Your task to perform on an android device: Is it going to rain this weekend? Image 0: 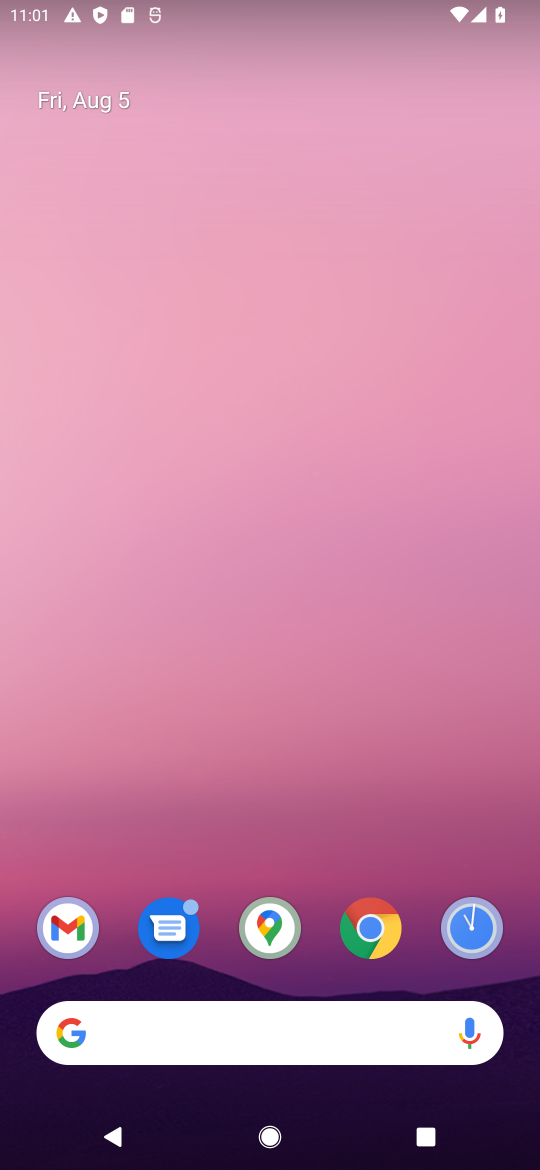
Step 0: click (269, 1034)
Your task to perform on an android device: Is it going to rain this weekend? Image 1: 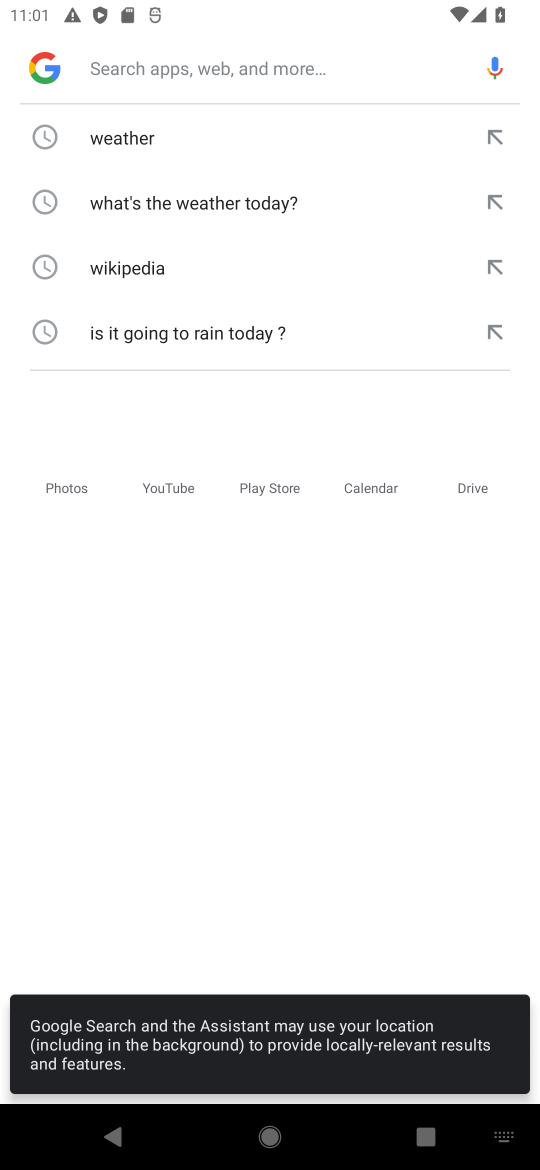
Step 1: click (168, 141)
Your task to perform on an android device: Is it going to rain this weekend? Image 2: 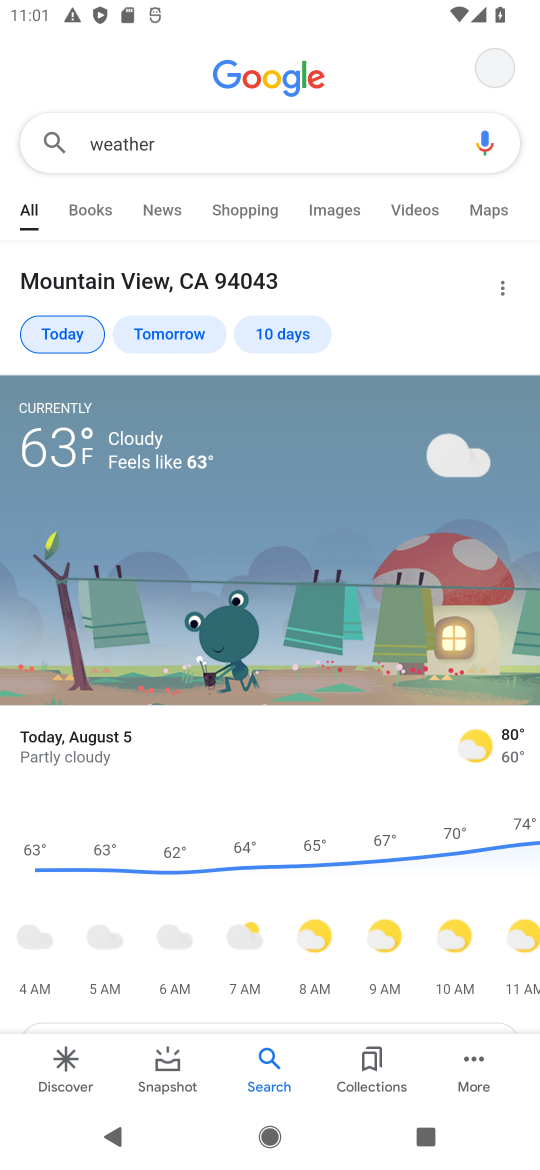
Step 2: click (250, 330)
Your task to perform on an android device: Is it going to rain this weekend? Image 3: 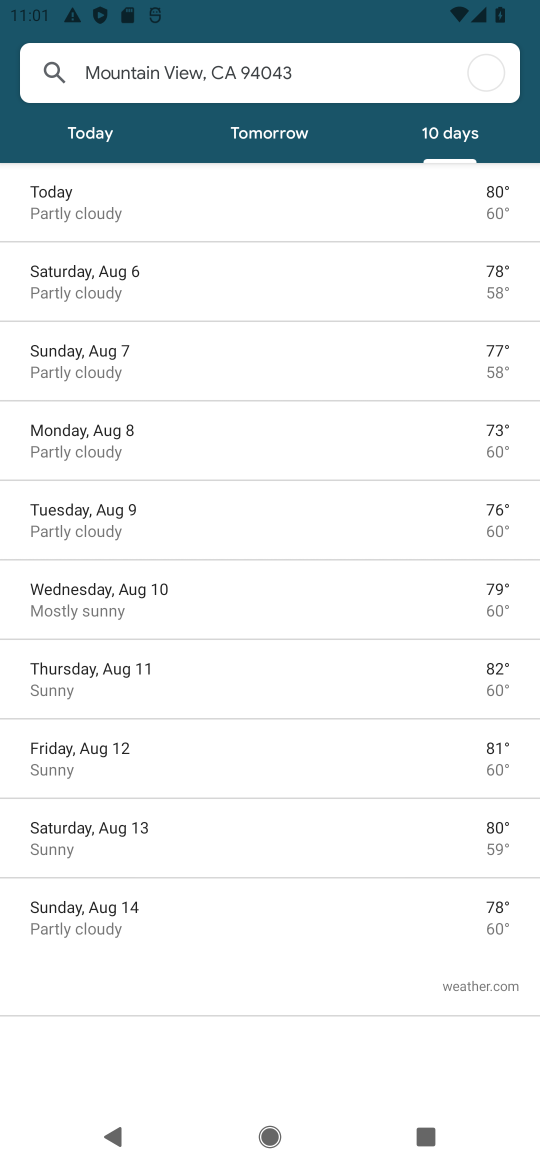
Step 3: task complete